Your task to perform on an android device: Turn on the flashlight Image 0: 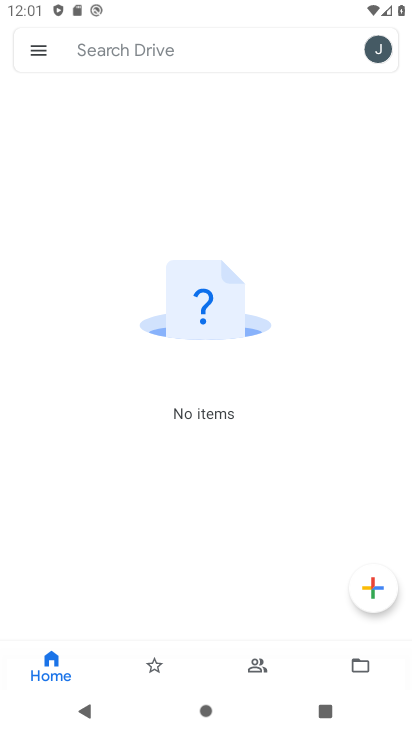
Step 0: drag from (187, 5) to (282, 596)
Your task to perform on an android device: Turn on the flashlight Image 1: 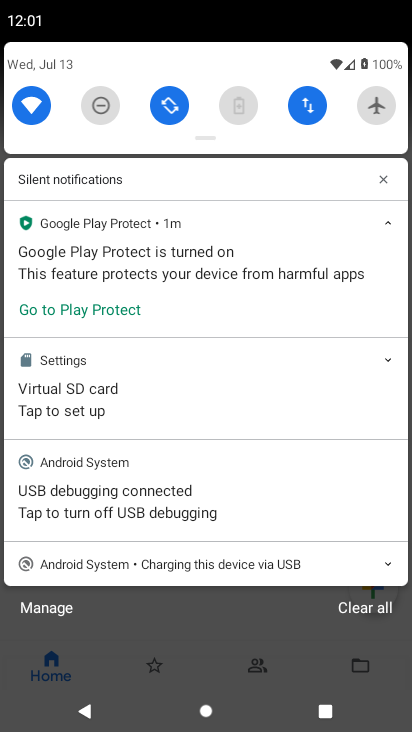
Step 1: drag from (202, 300) to (197, 489)
Your task to perform on an android device: Turn on the flashlight Image 2: 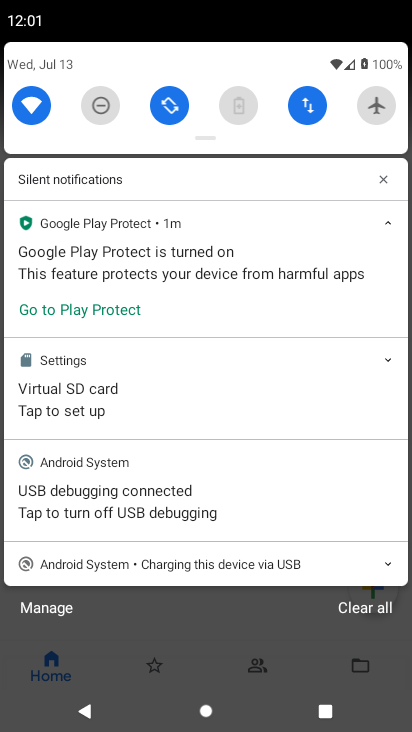
Step 2: drag from (183, 68) to (233, 631)
Your task to perform on an android device: Turn on the flashlight Image 3: 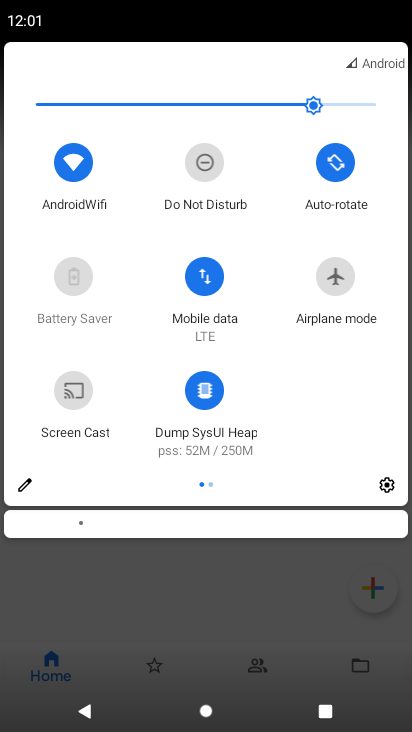
Step 3: drag from (345, 320) to (0, 330)
Your task to perform on an android device: Turn on the flashlight Image 4: 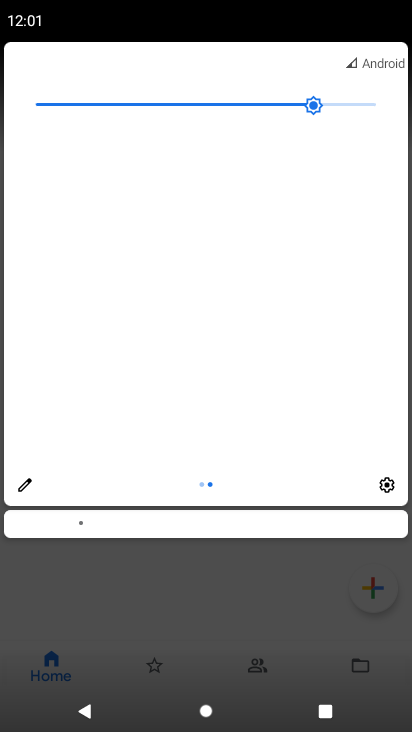
Step 4: click (24, 485)
Your task to perform on an android device: Turn on the flashlight Image 5: 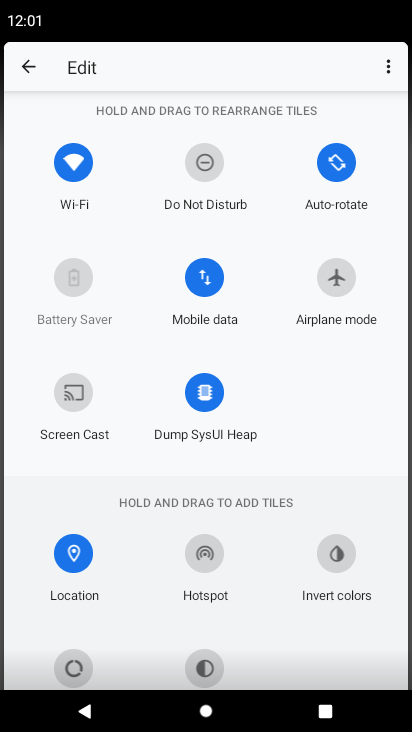
Step 5: task complete